Your task to perform on an android device: toggle improve location accuracy Image 0: 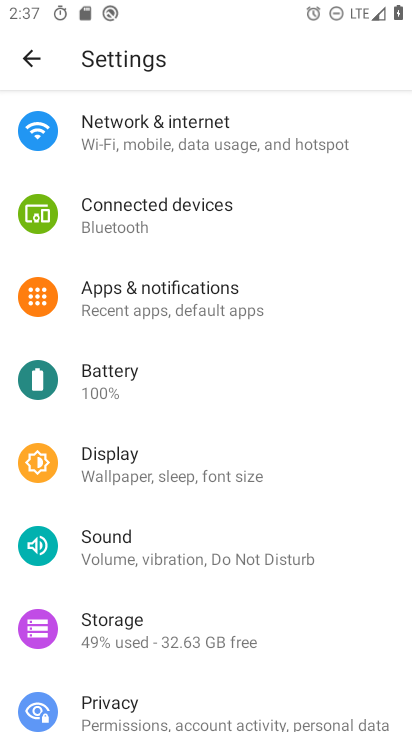
Step 0: drag from (175, 591) to (250, 265)
Your task to perform on an android device: toggle improve location accuracy Image 1: 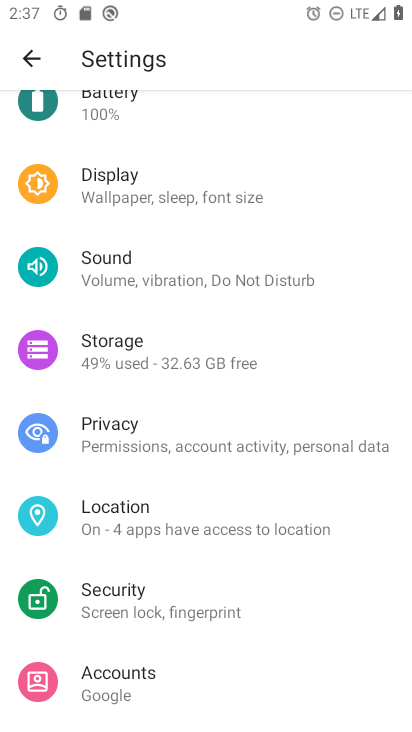
Step 1: click (153, 522)
Your task to perform on an android device: toggle improve location accuracy Image 2: 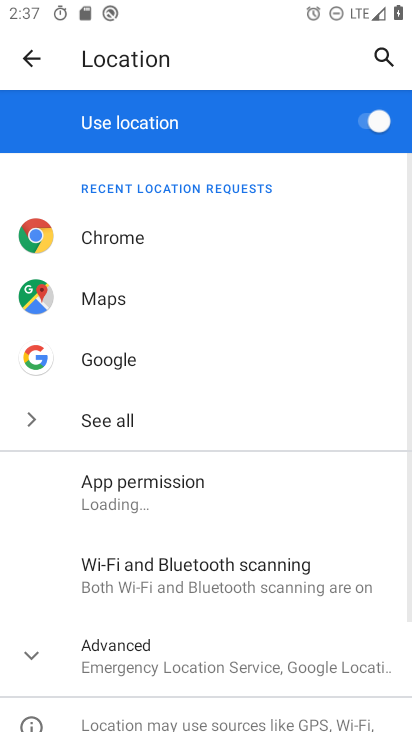
Step 2: drag from (237, 586) to (280, 266)
Your task to perform on an android device: toggle improve location accuracy Image 3: 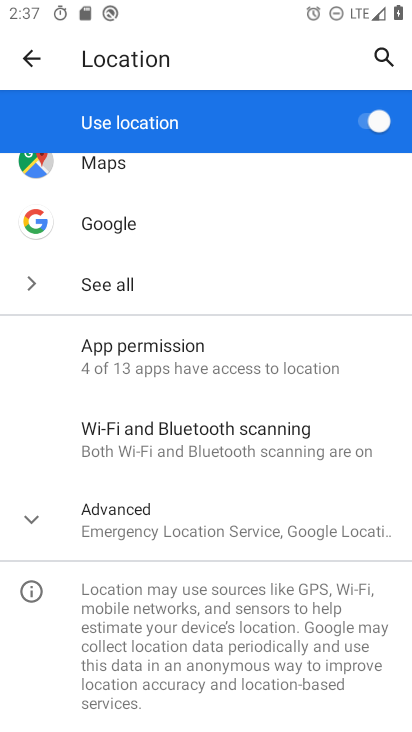
Step 3: click (212, 511)
Your task to perform on an android device: toggle improve location accuracy Image 4: 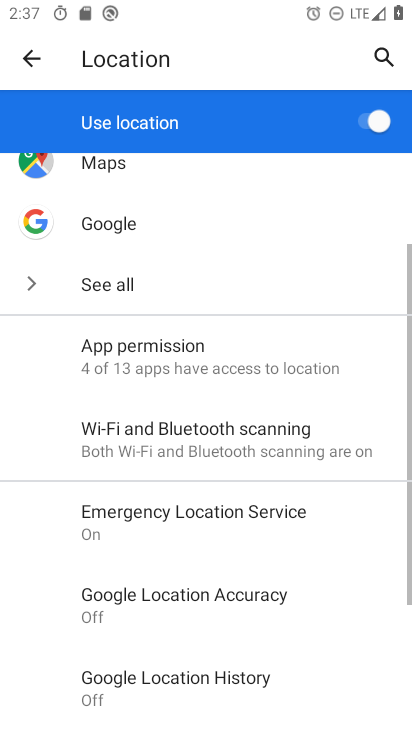
Step 4: drag from (335, 634) to (369, 344)
Your task to perform on an android device: toggle improve location accuracy Image 5: 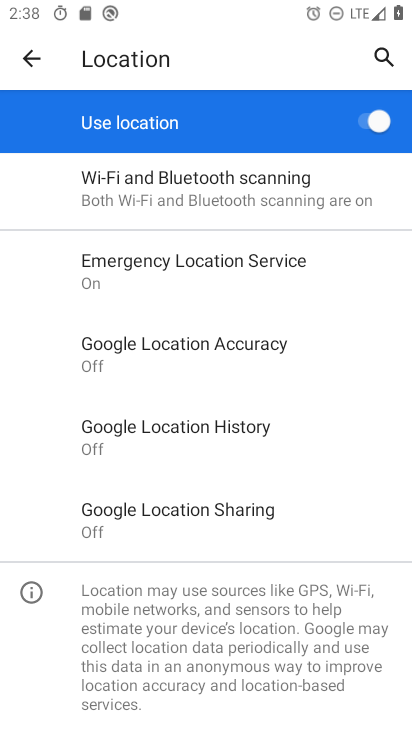
Step 5: click (242, 338)
Your task to perform on an android device: toggle improve location accuracy Image 6: 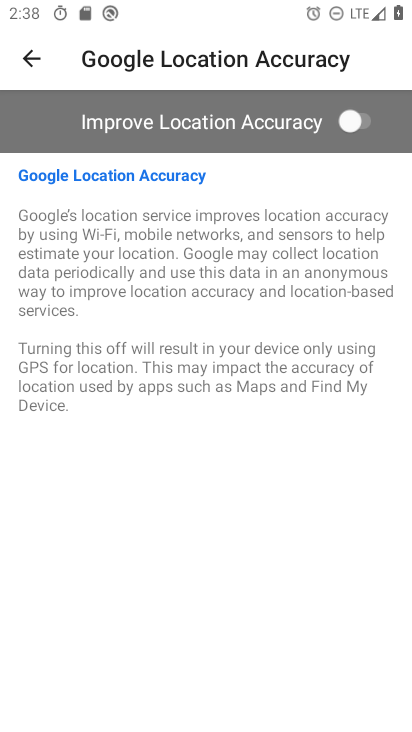
Step 6: click (365, 122)
Your task to perform on an android device: toggle improve location accuracy Image 7: 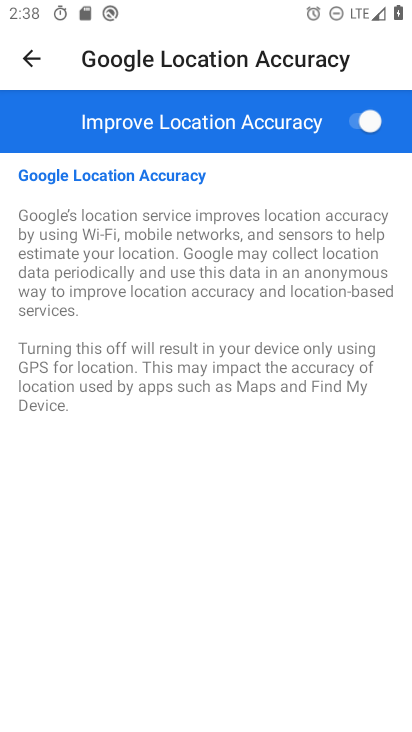
Step 7: task complete